Your task to perform on an android device: Open Chrome and go to the settings page Image 0: 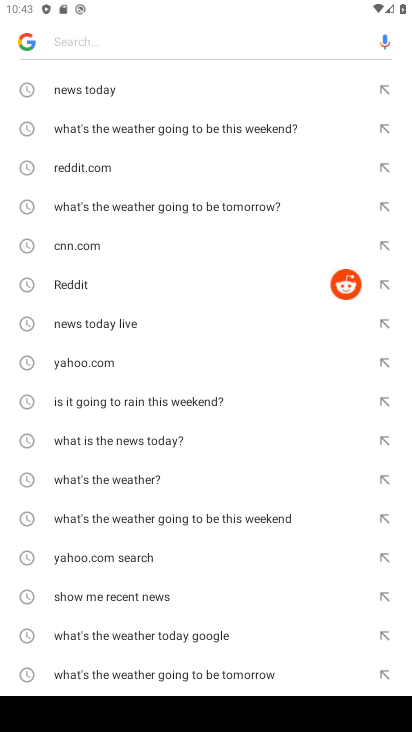
Step 0: press home button
Your task to perform on an android device: Open Chrome and go to the settings page Image 1: 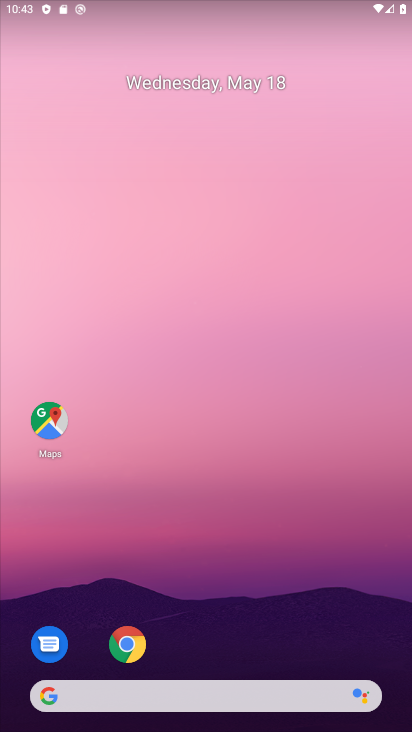
Step 1: drag from (340, 623) to (295, 15)
Your task to perform on an android device: Open Chrome and go to the settings page Image 2: 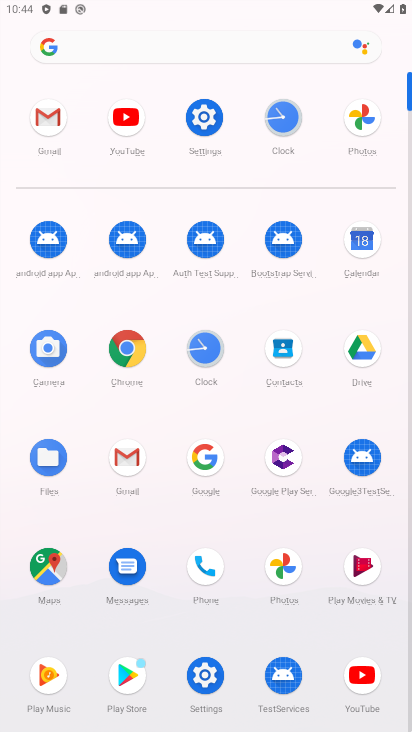
Step 2: click (122, 365)
Your task to perform on an android device: Open Chrome and go to the settings page Image 3: 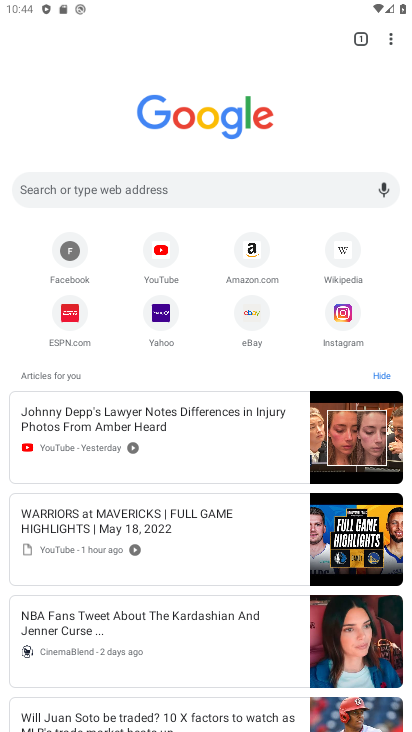
Step 3: click (383, 34)
Your task to perform on an android device: Open Chrome and go to the settings page Image 4: 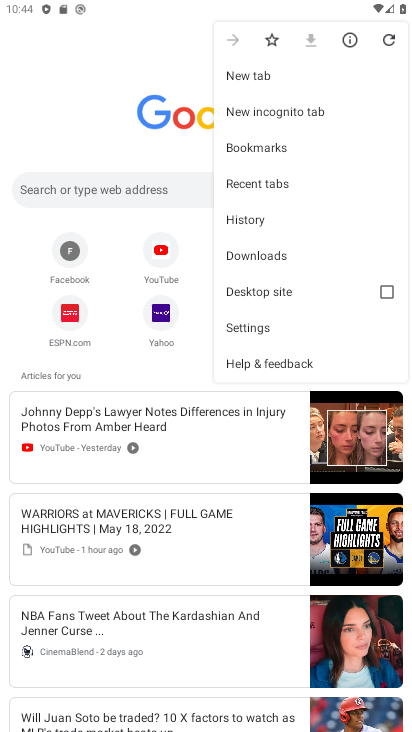
Step 4: click (271, 320)
Your task to perform on an android device: Open Chrome and go to the settings page Image 5: 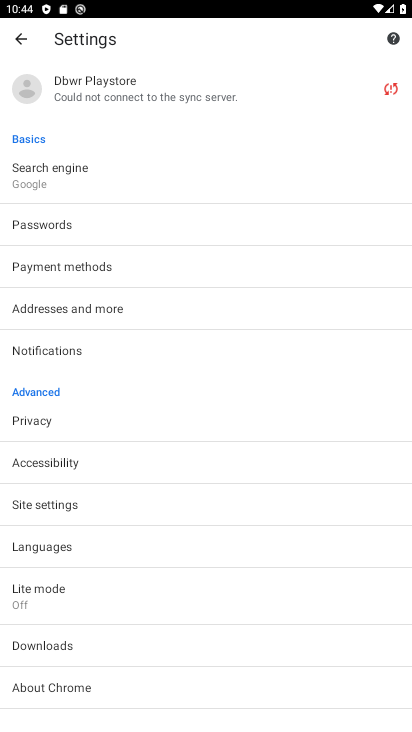
Step 5: task complete